Your task to perform on an android device: Go to Amazon Image 0: 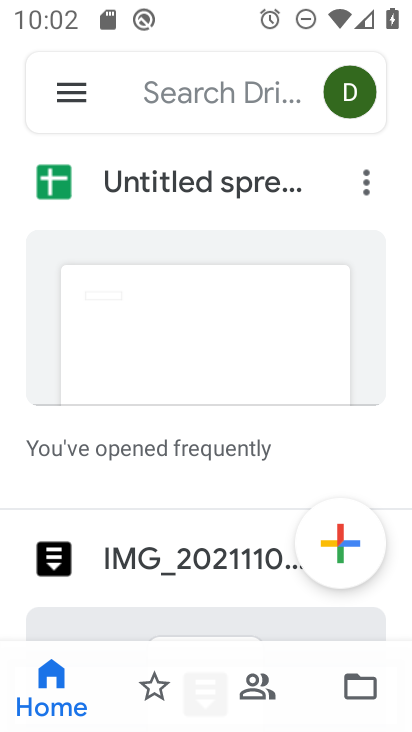
Step 0: press home button
Your task to perform on an android device: Go to Amazon Image 1: 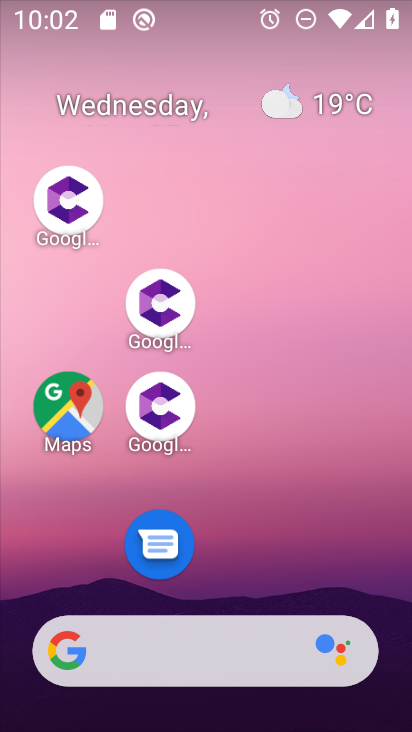
Step 1: drag from (296, 498) to (163, 12)
Your task to perform on an android device: Go to Amazon Image 2: 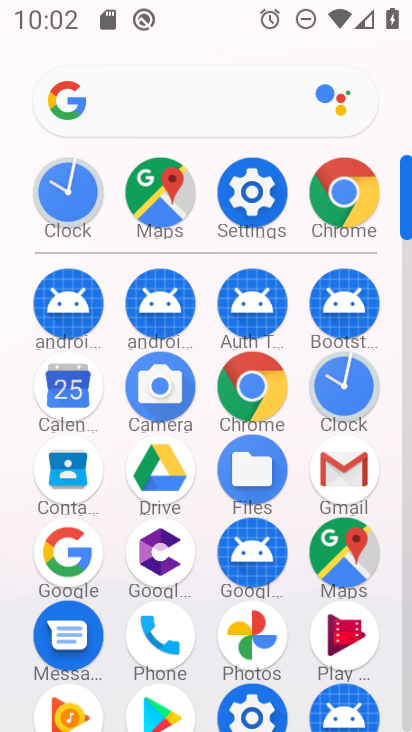
Step 2: click (340, 185)
Your task to perform on an android device: Go to Amazon Image 3: 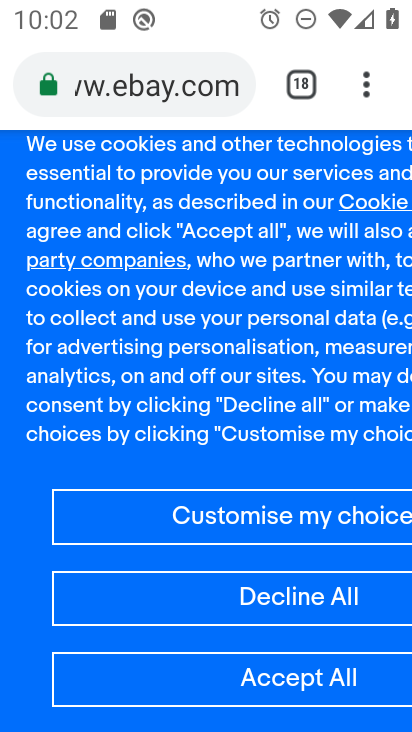
Step 3: click (364, 90)
Your task to perform on an android device: Go to Amazon Image 4: 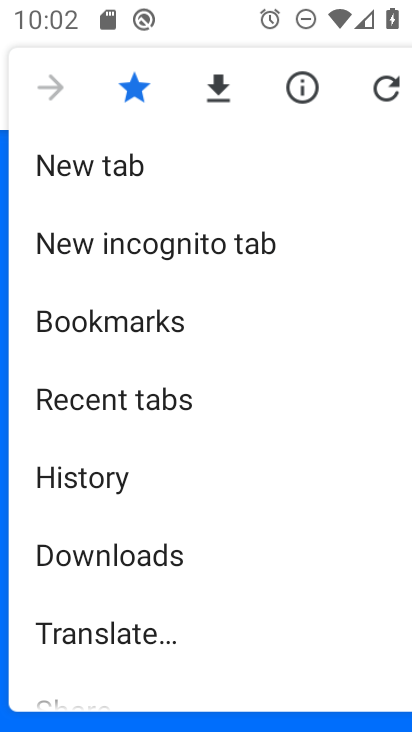
Step 4: click (84, 167)
Your task to perform on an android device: Go to Amazon Image 5: 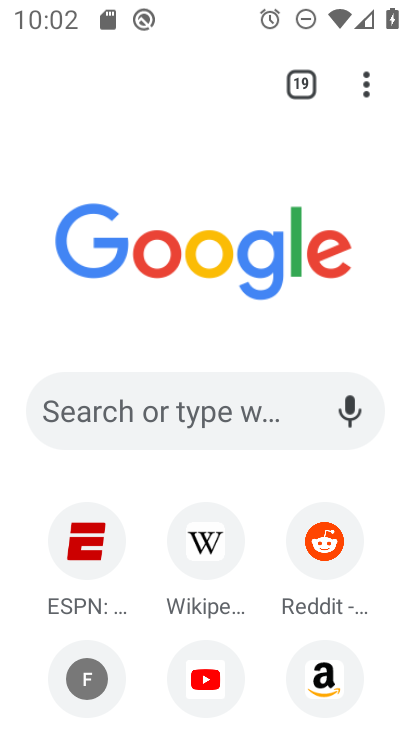
Step 5: click (320, 671)
Your task to perform on an android device: Go to Amazon Image 6: 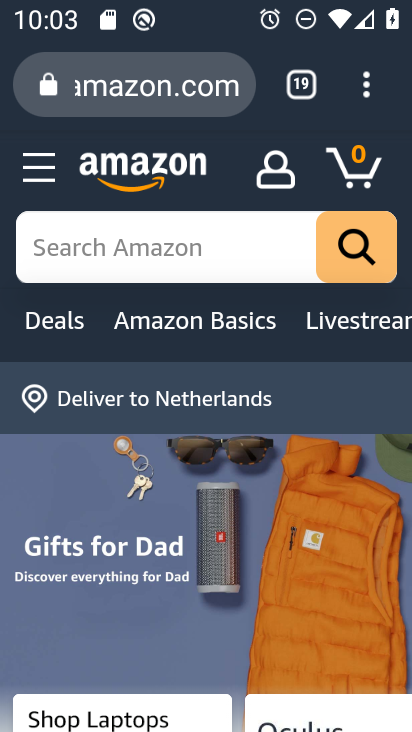
Step 6: task complete